Your task to perform on an android device: set the stopwatch Image 0: 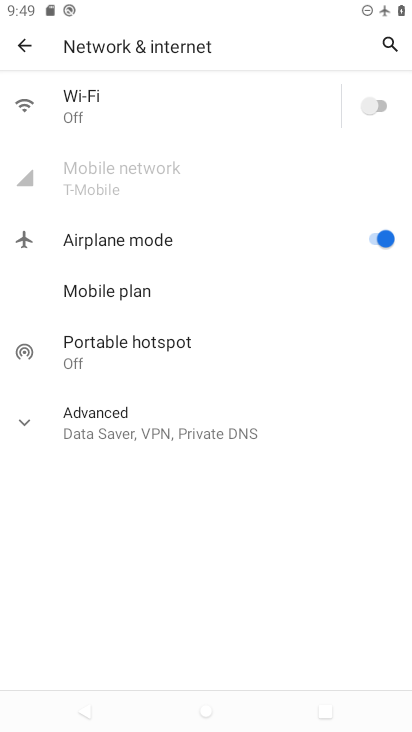
Step 0: press home button
Your task to perform on an android device: set the stopwatch Image 1: 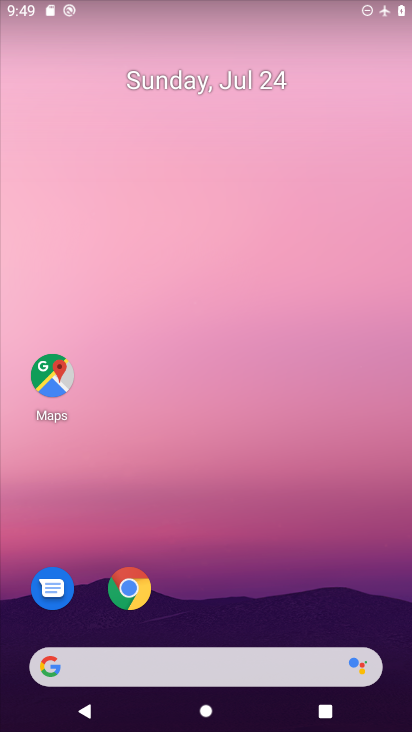
Step 1: drag from (216, 628) to (227, 13)
Your task to perform on an android device: set the stopwatch Image 2: 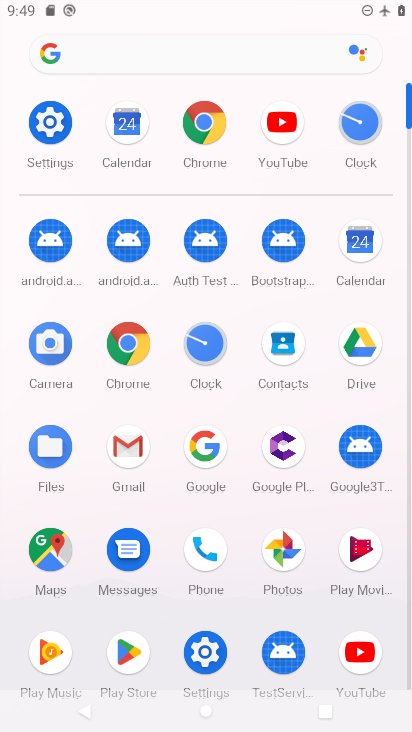
Step 2: click (352, 129)
Your task to perform on an android device: set the stopwatch Image 3: 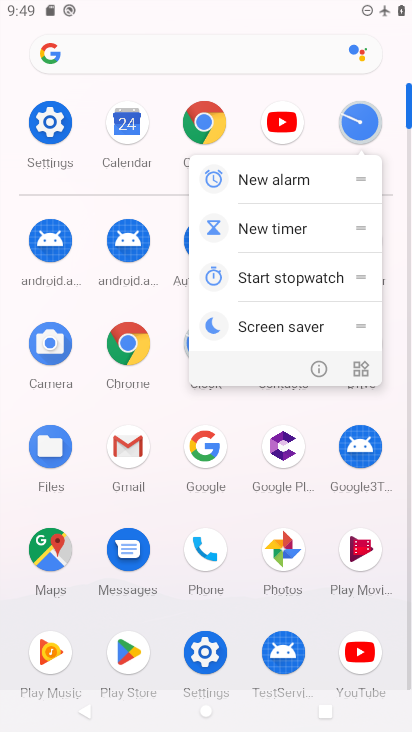
Step 3: click (353, 128)
Your task to perform on an android device: set the stopwatch Image 4: 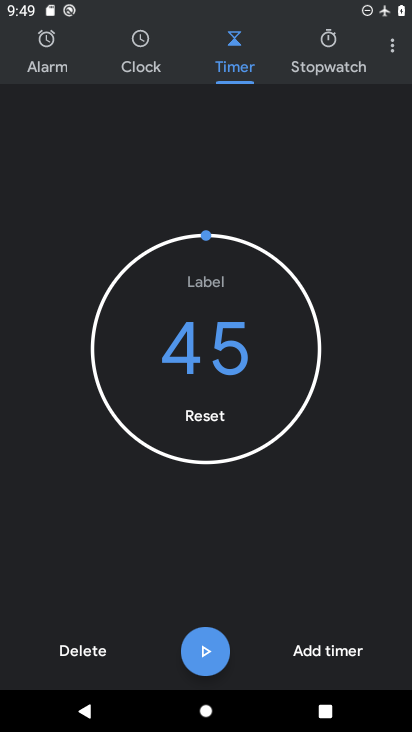
Step 4: click (326, 60)
Your task to perform on an android device: set the stopwatch Image 5: 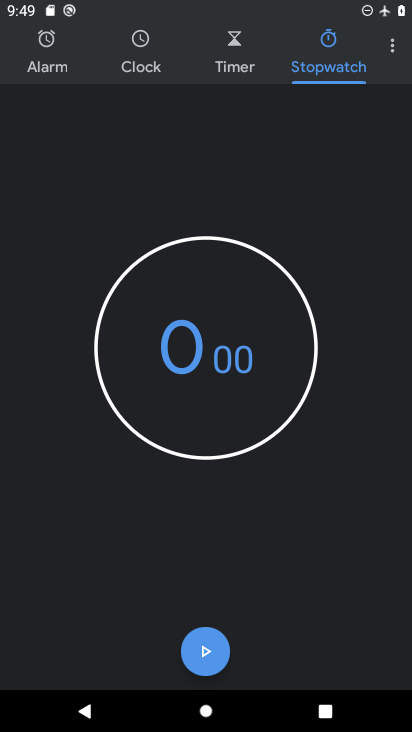
Step 5: click (199, 651)
Your task to perform on an android device: set the stopwatch Image 6: 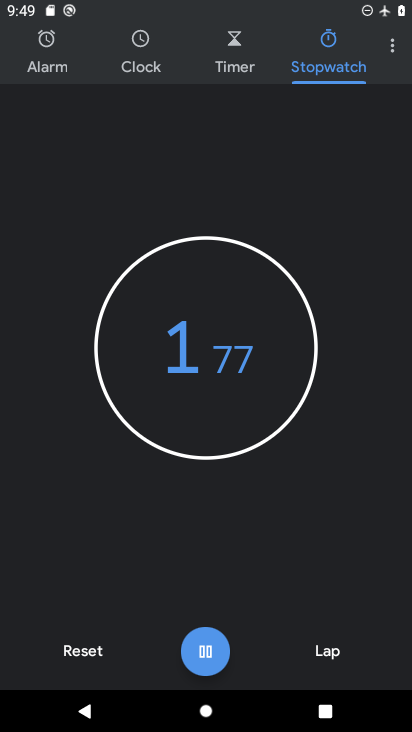
Step 6: click (219, 649)
Your task to perform on an android device: set the stopwatch Image 7: 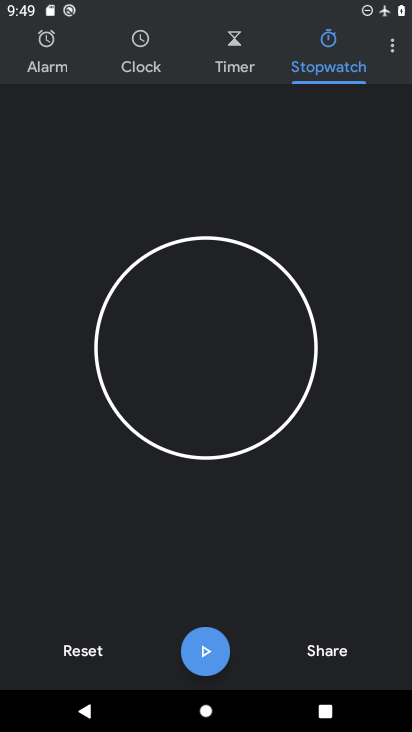
Step 7: task complete